Your task to perform on an android device: Add usb-c to usb-a to the cart on walmart.com, then select checkout. Image 0: 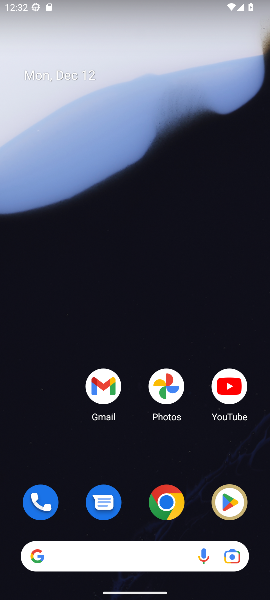
Step 0: click (113, 556)
Your task to perform on an android device: Add usb-c to usb-a to the cart on walmart.com, then select checkout. Image 1: 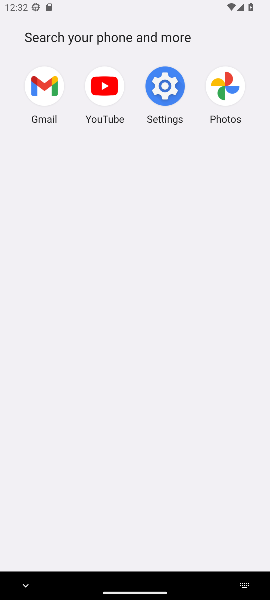
Step 1: press home button
Your task to perform on an android device: Add usb-c to usb-a to the cart on walmart.com, then select checkout. Image 2: 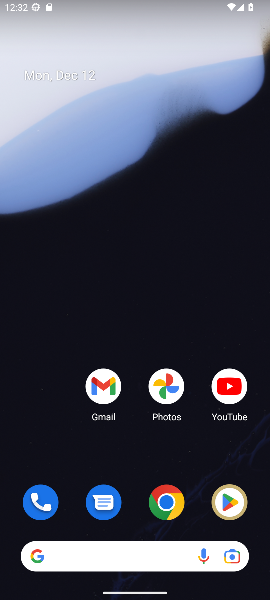
Step 2: click (175, 493)
Your task to perform on an android device: Add usb-c to usb-a to the cart on walmart.com, then select checkout. Image 3: 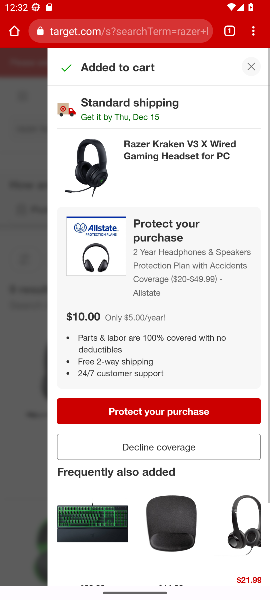
Step 3: click (165, 38)
Your task to perform on an android device: Add usb-c to usb-a to the cart on walmart.com, then select checkout. Image 4: 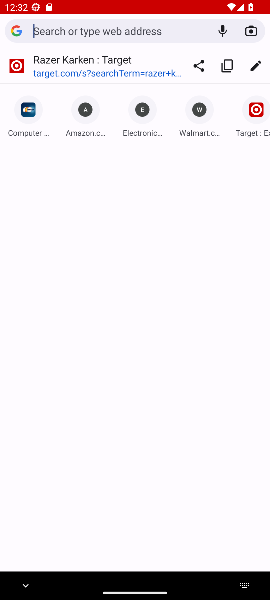
Step 4: type "walmart"
Your task to perform on an android device: Add usb-c to usb-a to the cart on walmart.com, then select checkout. Image 5: 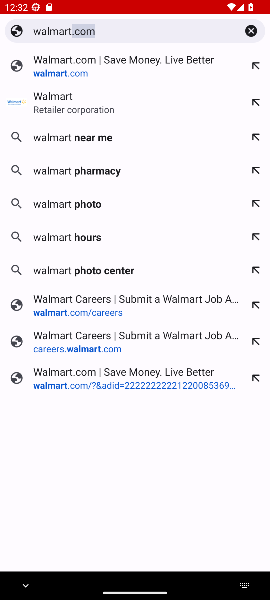
Step 5: click (108, 79)
Your task to perform on an android device: Add usb-c to usb-a to the cart on walmart.com, then select checkout. Image 6: 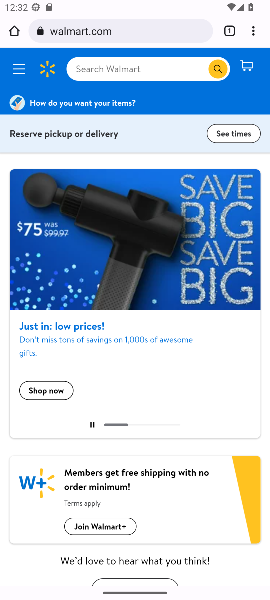
Step 6: click (131, 78)
Your task to perform on an android device: Add usb-c to usb-a to the cart on walmart.com, then select checkout. Image 7: 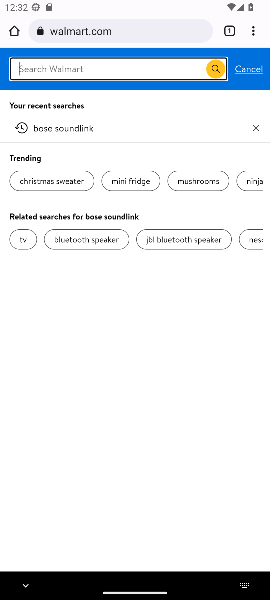
Step 7: type "usb-c to usb-a"
Your task to perform on an android device: Add usb-c to usb-a to the cart on walmart.com, then select checkout. Image 8: 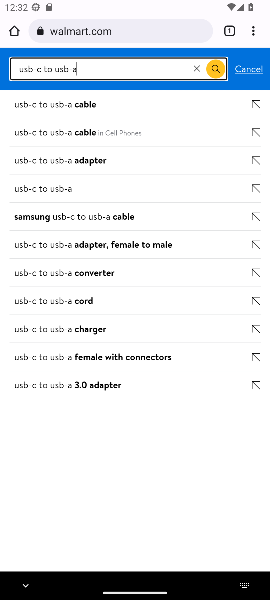
Step 8: click (116, 102)
Your task to perform on an android device: Add usb-c to usb-a to the cart on walmart.com, then select checkout. Image 9: 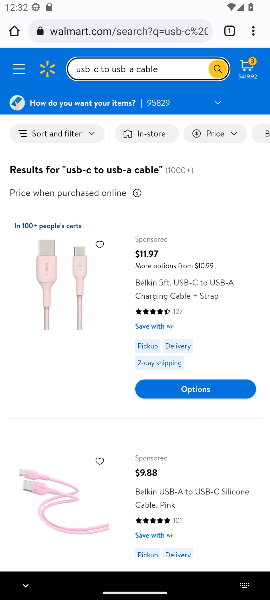
Step 9: click (180, 384)
Your task to perform on an android device: Add usb-c to usb-a to the cart on walmart.com, then select checkout. Image 10: 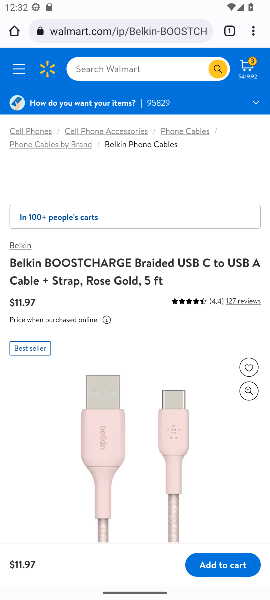
Step 10: click (214, 559)
Your task to perform on an android device: Add usb-c to usb-a to the cart on walmart.com, then select checkout. Image 11: 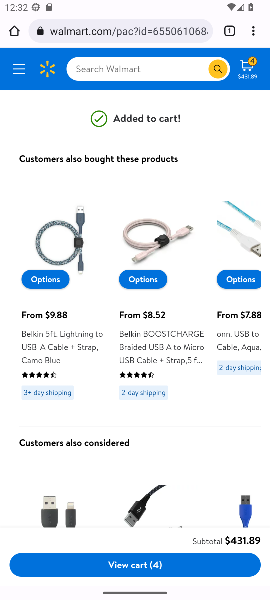
Step 11: click (30, 311)
Your task to perform on an android device: Add usb-c to usb-a to the cart on walmart.com, then select checkout. Image 12: 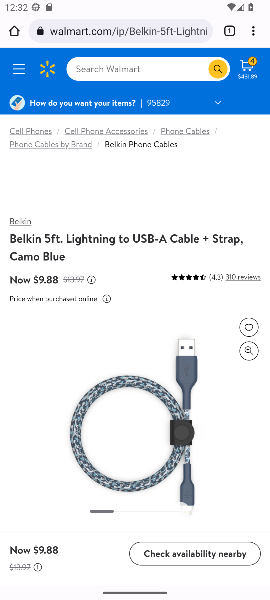
Step 12: drag from (166, 442) to (164, 292)
Your task to perform on an android device: Add usb-c to usb-a to the cart on walmart.com, then select checkout. Image 13: 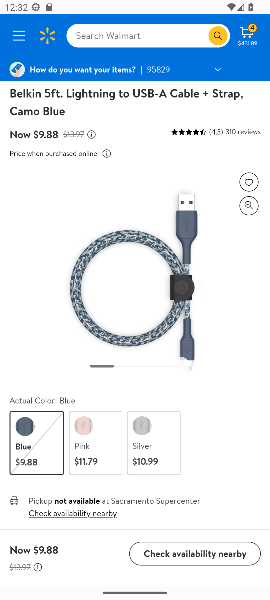
Step 13: drag from (169, 407) to (173, 167)
Your task to perform on an android device: Add usb-c to usb-a to the cart on walmart.com, then select checkout. Image 14: 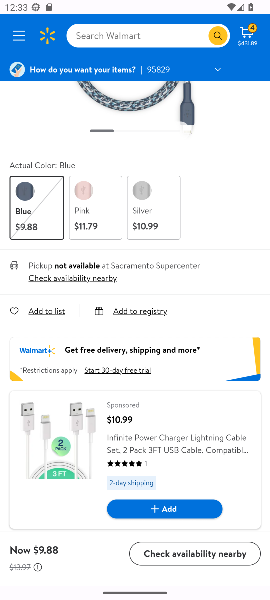
Step 14: click (193, 511)
Your task to perform on an android device: Add usb-c to usb-a to the cart on walmart.com, then select checkout. Image 15: 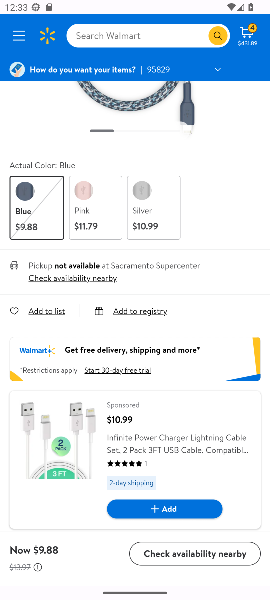
Step 15: task complete